Your task to perform on an android device: turn on location history Image 0: 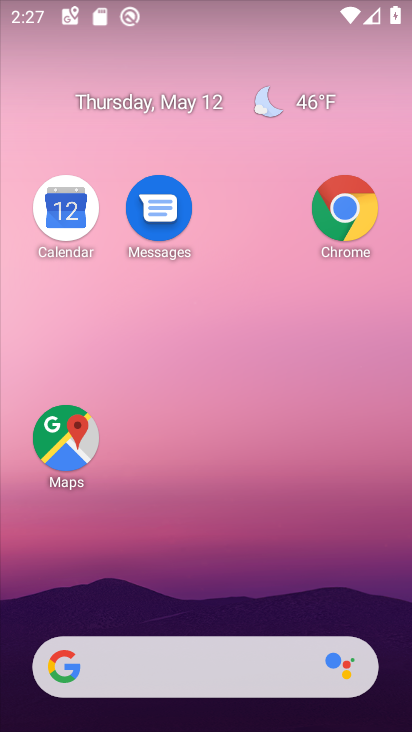
Step 0: drag from (160, 636) to (321, 225)
Your task to perform on an android device: turn on location history Image 1: 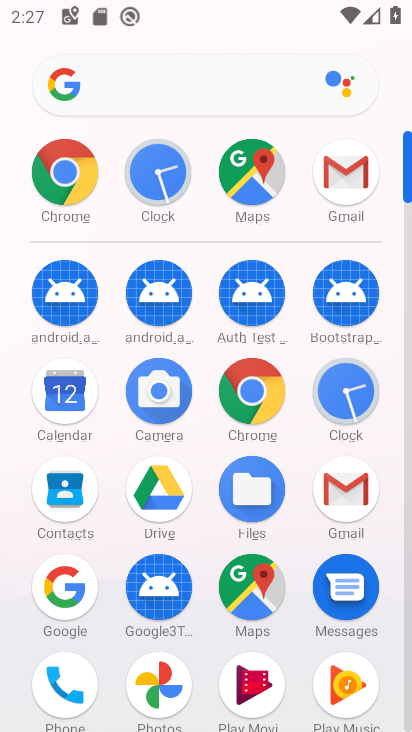
Step 1: drag from (191, 643) to (228, 279)
Your task to perform on an android device: turn on location history Image 2: 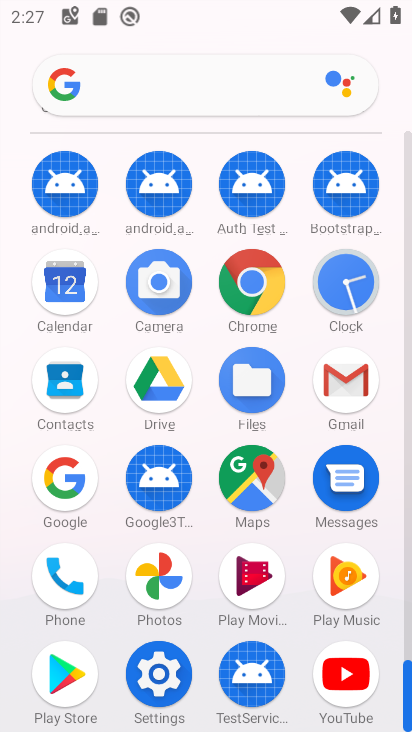
Step 2: click (151, 671)
Your task to perform on an android device: turn on location history Image 3: 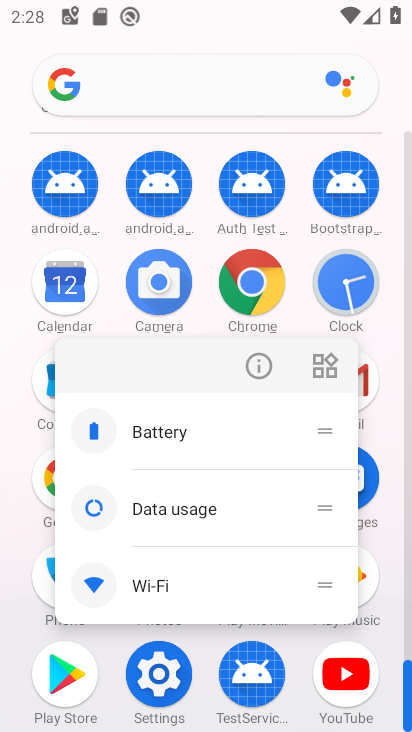
Step 3: click (268, 361)
Your task to perform on an android device: turn on location history Image 4: 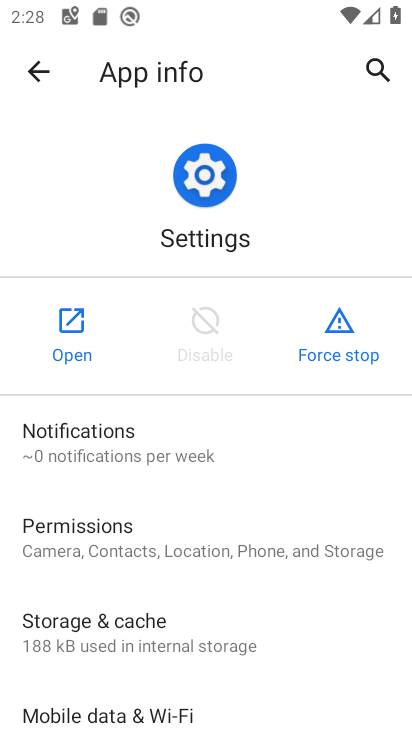
Step 4: click (72, 312)
Your task to perform on an android device: turn on location history Image 5: 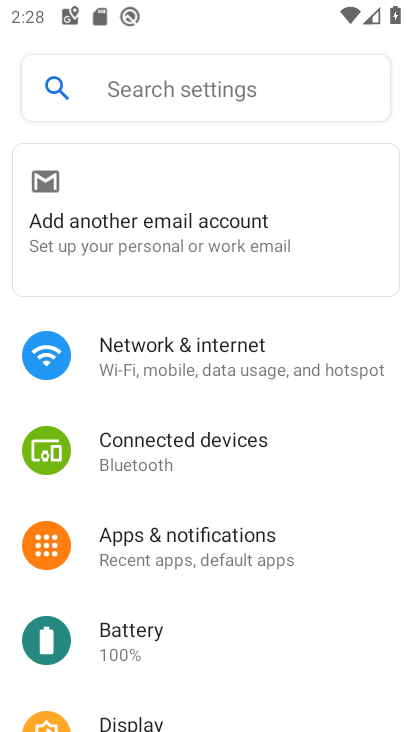
Step 5: drag from (157, 593) to (294, 143)
Your task to perform on an android device: turn on location history Image 6: 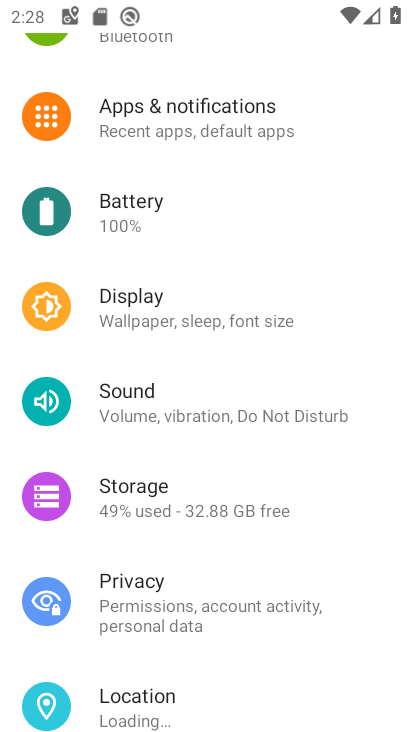
Step 6: click (170, 691)
Your task to perform on an android device: turn on location history Image 7: 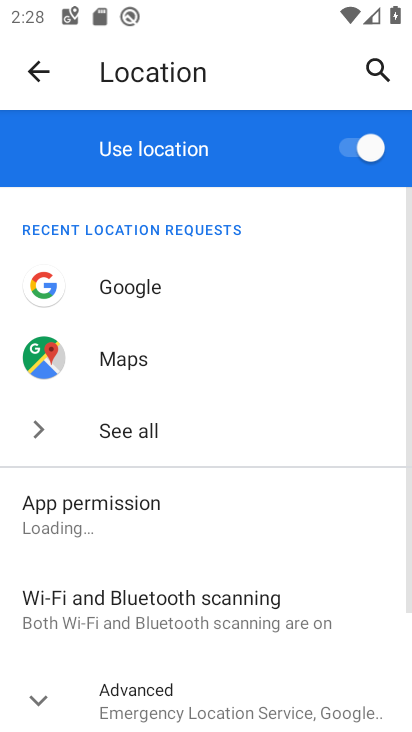
Step 7: drag from (231, 575) to (277, 287)
Your task to perform on an android device: turn on location history Image 8: 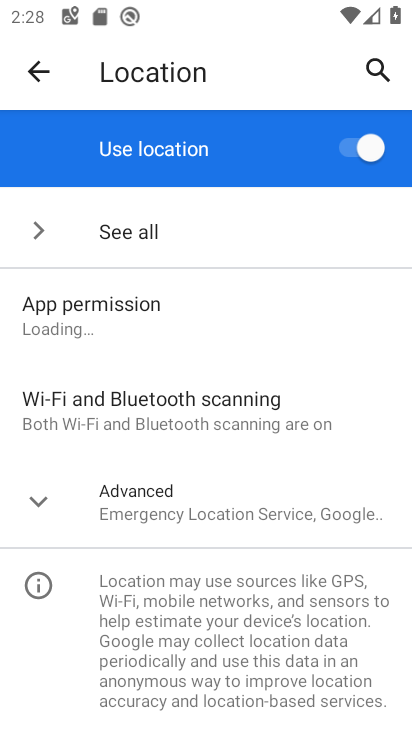
Step 8: click (137, 493)
Your task to perform on an android device: turn on location history Image 9: 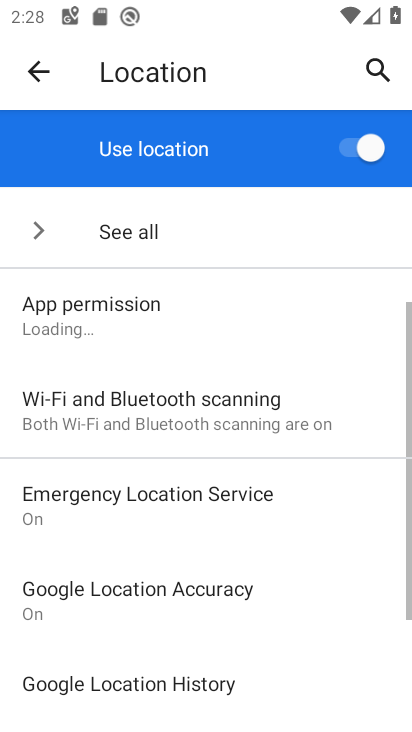
Step 9: drag from (257, 522) to (319, 215)
Your task to perform on an android device: turn on location history Image 10: 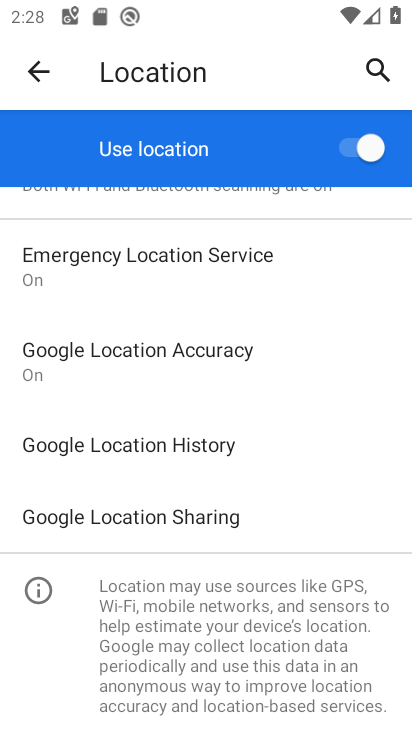
Step 10: click (231, 450)
Your task to perform on an android device: turn on location history Image 11: 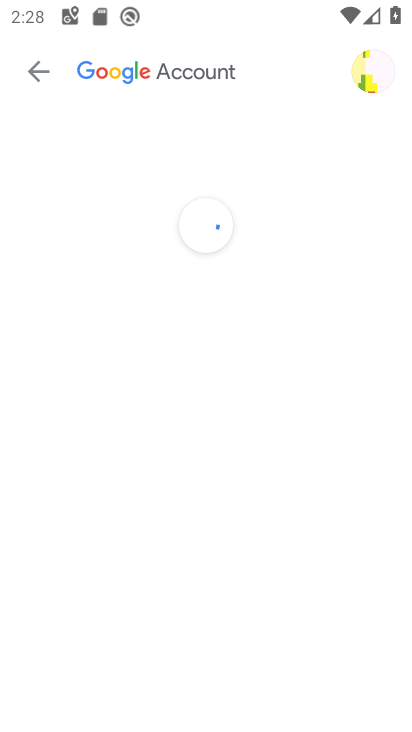
Step 11: drag from (202, 577) to (319, 151)
Your task to perform on an android device: turn on location history Image 12: 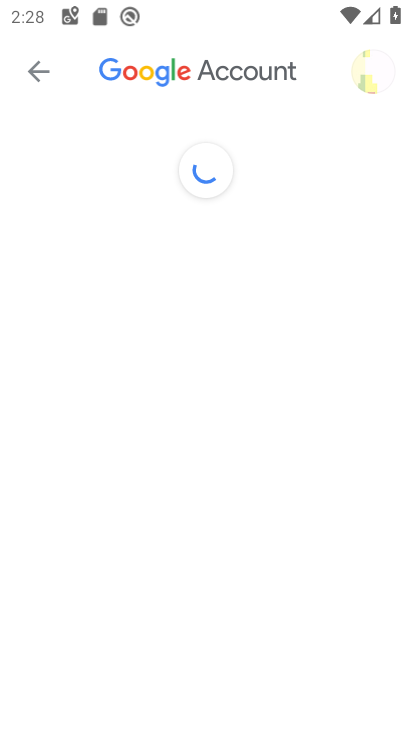
Step 12: drag from (255, 477) to (280, 195)
Your task to perform on an android device: turn on location history Image 13: 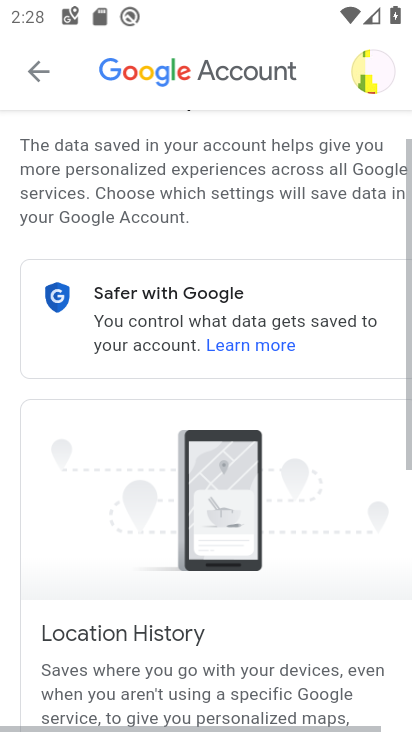
Step 13: drag from (221, 617) to (276, 214)
Your task to perform on an android device: turn on location history Image 14: 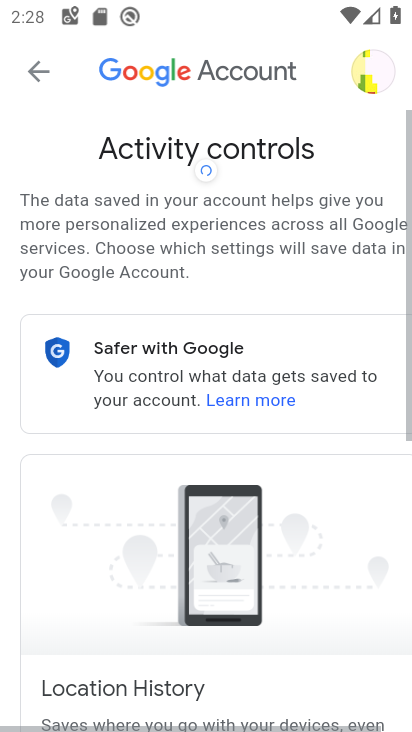
Step 14: click (337, 422)
Your task to perform on an android device: turn on location history Image 15: 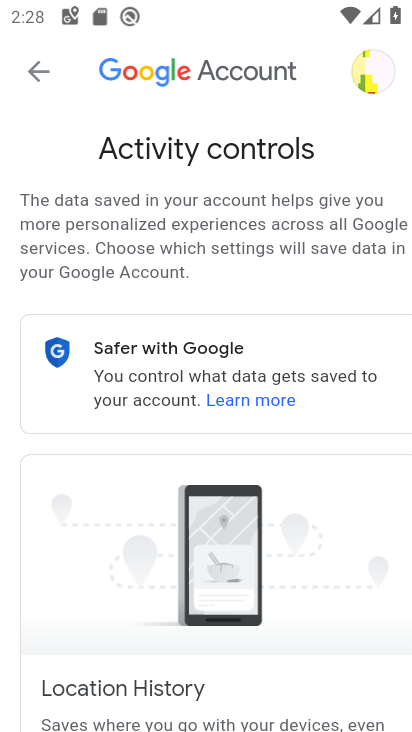
Step 15: drag from (308, 454) to (404, 9)
Your task to perform on an android device: turn on location history Image 16: 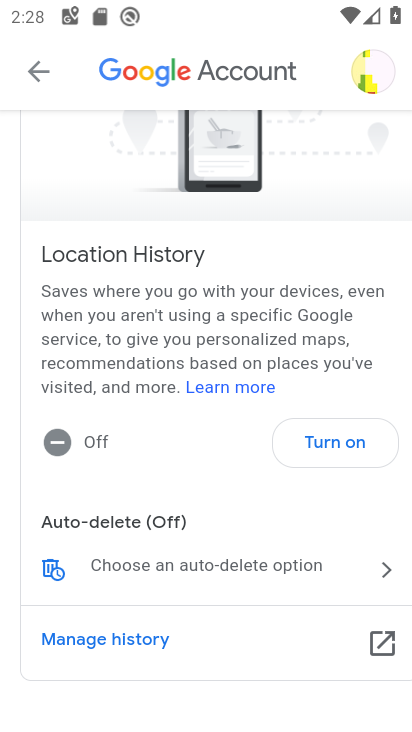
Step 16: click (332, 451)
Your task to perform on an android device: turn on location history Image 17: 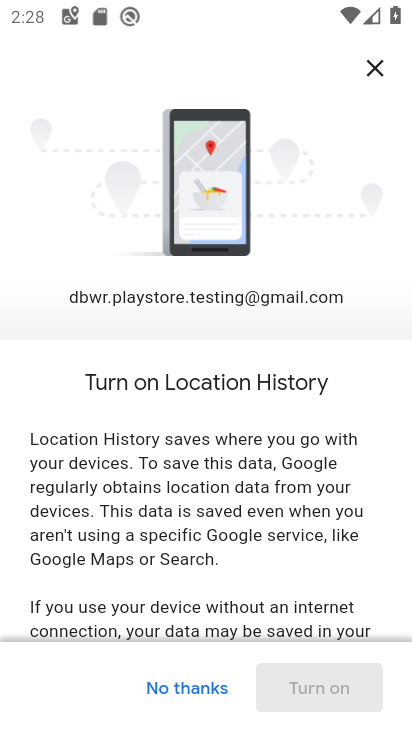
Step 17: drag from (222, 594) to (272, 140)
Your task to perform on an android device: turn on location history Image 18: 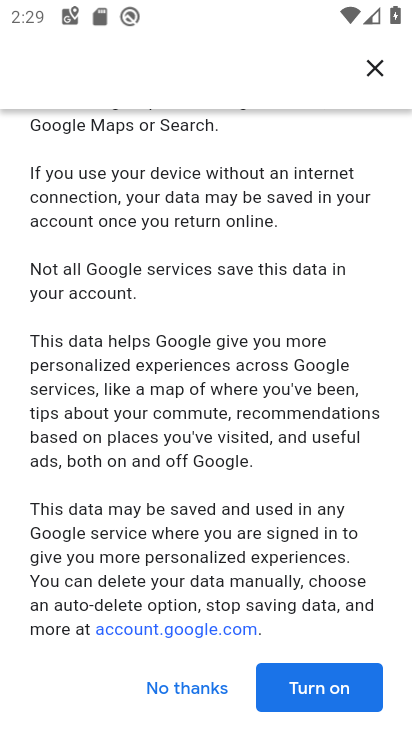
Step 18: drag from (201, 612) to (243, 418)
Your task to perform on an android device: turn on location history Image 19: 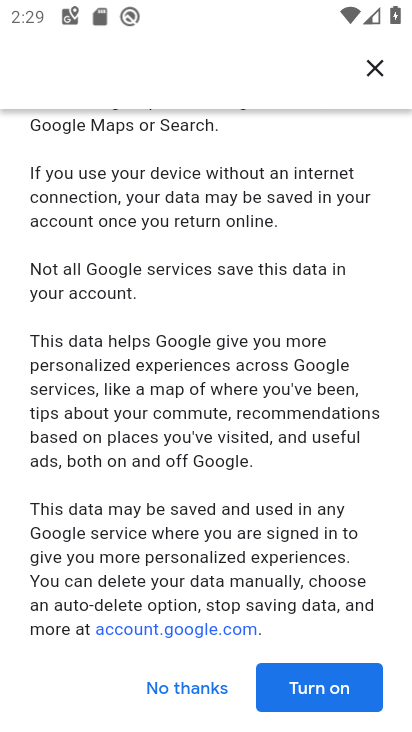
Step 19: click (307, 700)
Your task to perform on an android device: turn on location history Image 20: 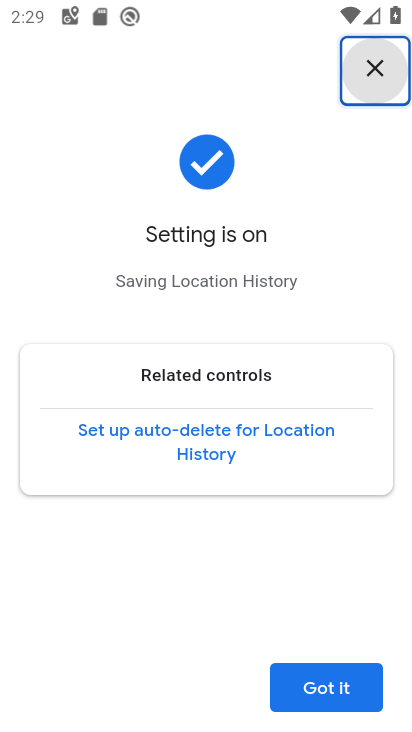
Step 20: click (313, 685)
Your task to perform on an android device: turn on location history Image 21: 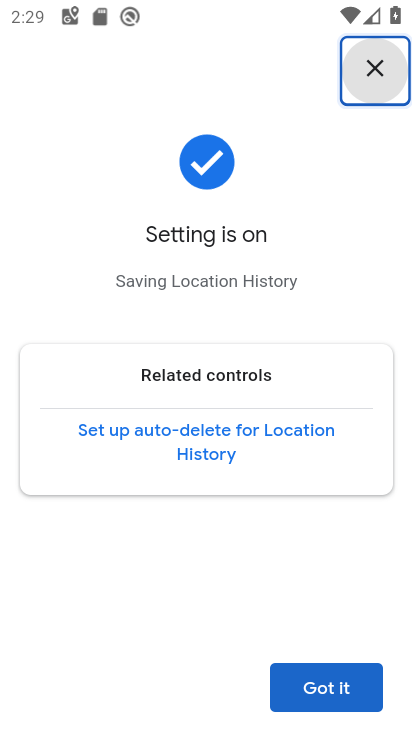
Step 21: task complete